Your task to perform on an android device: turn pop-ups off in chrome Image 0: 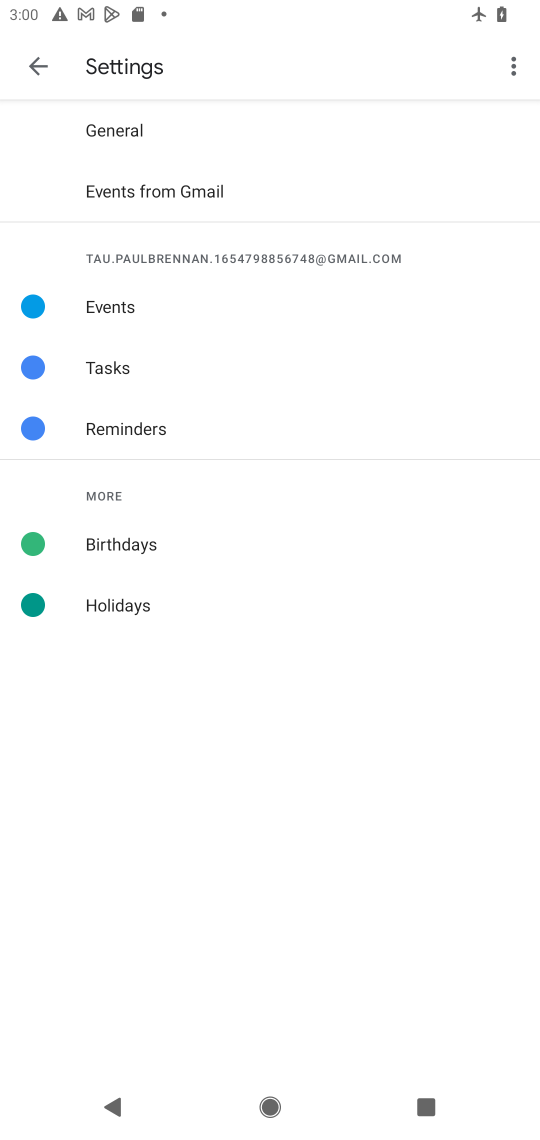
Step 0: press home button
Your task to perform on an android device: turn pop-ups off in chrome Image 1: 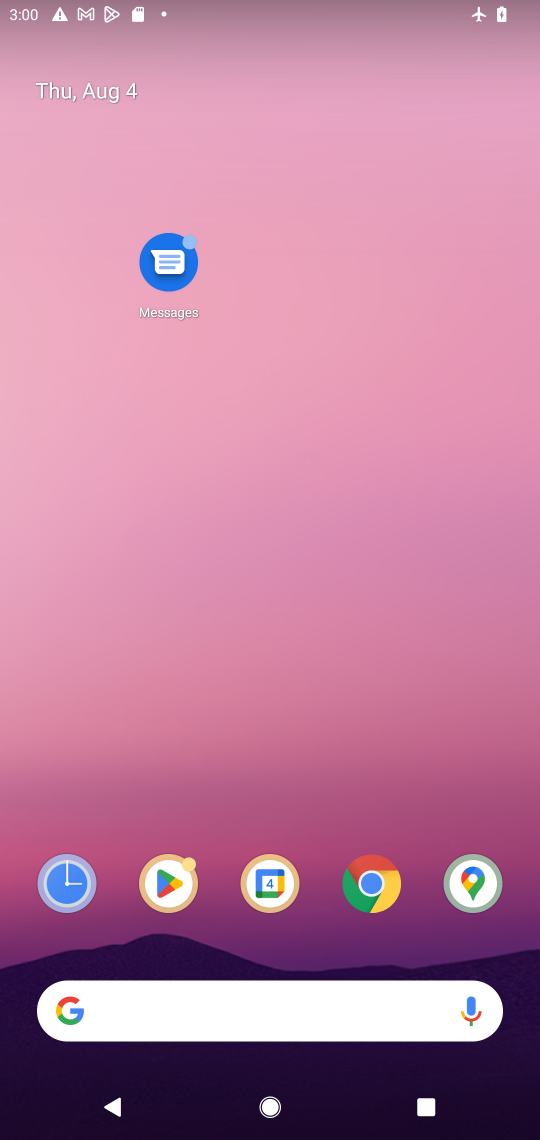
Step 1: click (372, 892)
Your task to perform on an android device: turn pop-ups off in chrome Image 2: 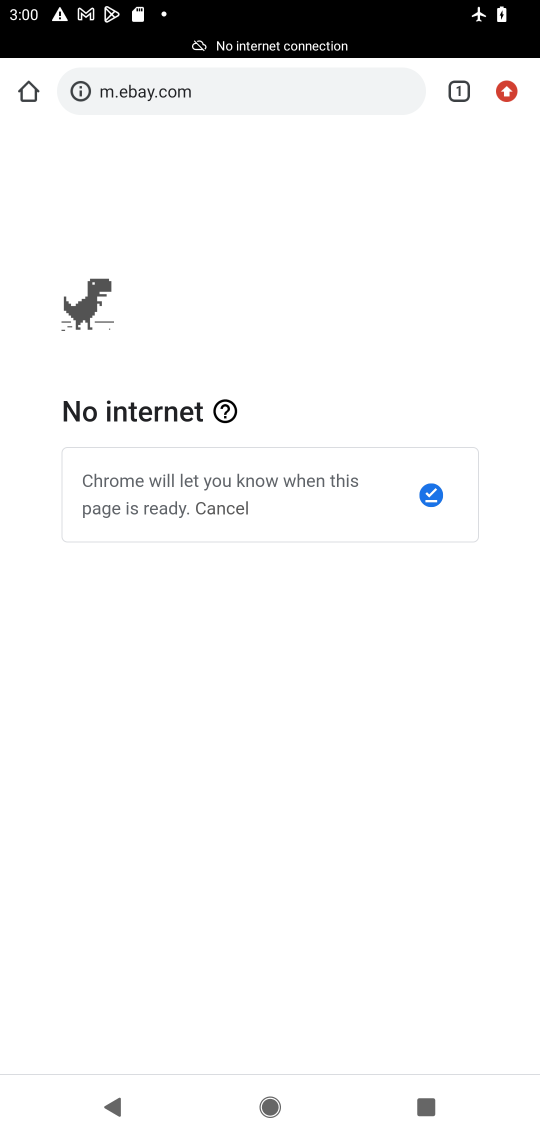
Step 2: click (508, 92)
Your task to perform on an android device: turn pop-ups off in chrome Image 3: 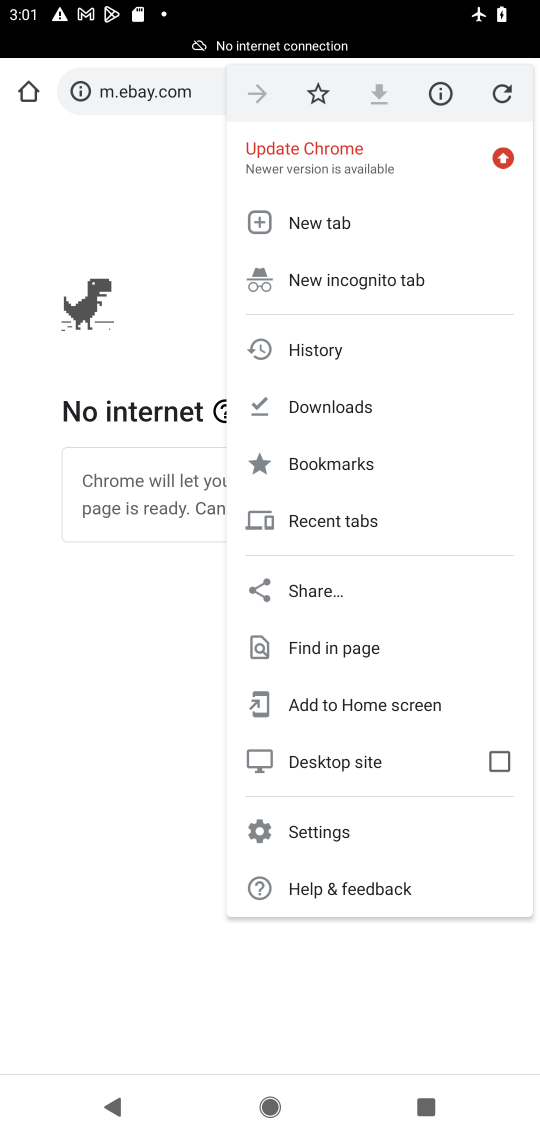
Step 3: click (331, 828)
Your task to perform on an android device: turn pop-ups off in chrome Image 4: 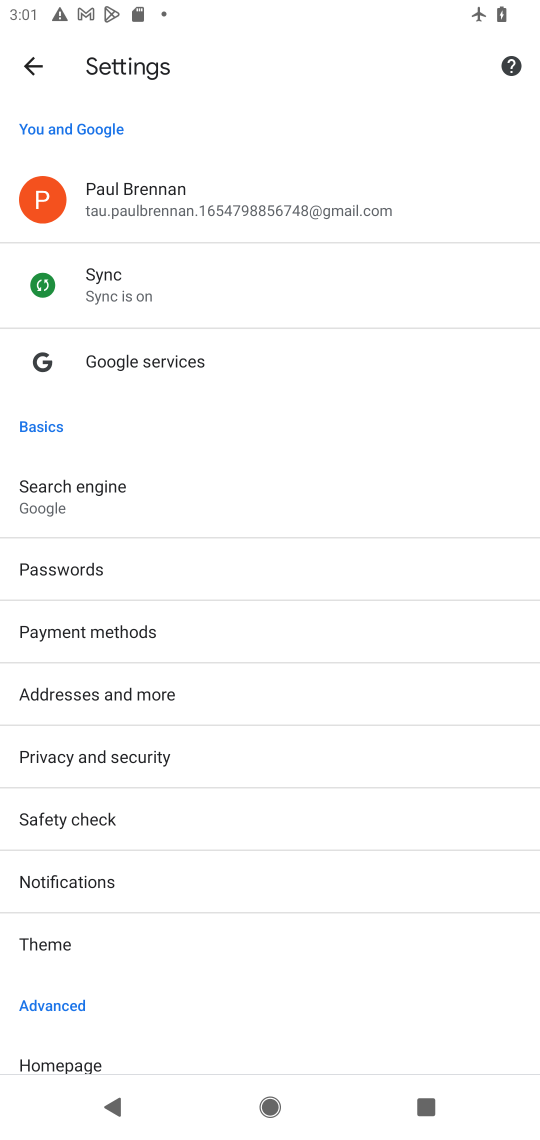
Step 4: drag from (121, 1016) to (107, 473)
Your task to perform on an android device: turn pop-ups off in chrome Image 5: 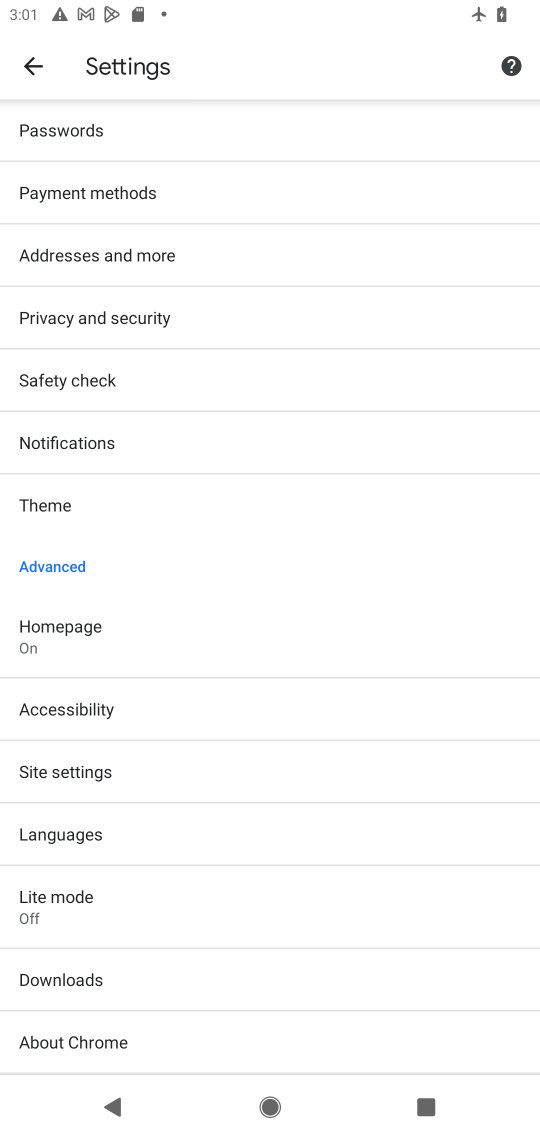
Step 5: click (88, 777)
Your task to perform on an android device: turn pop-ups off in chrome Image 6: 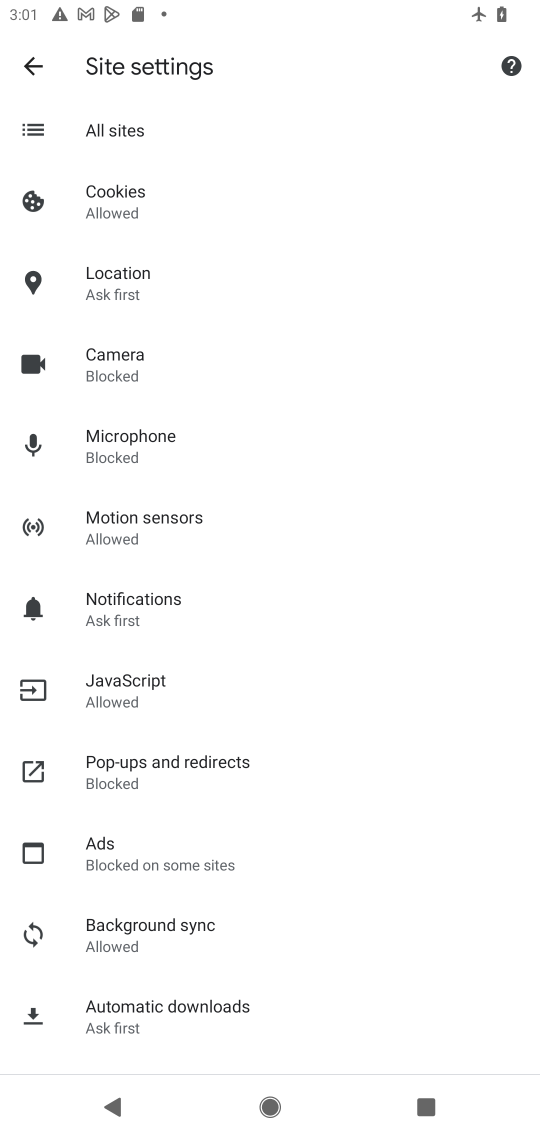
Step 6: click (140, 766)
Your task to perform on an android device: turn pop-ups off in chrome Image 7: 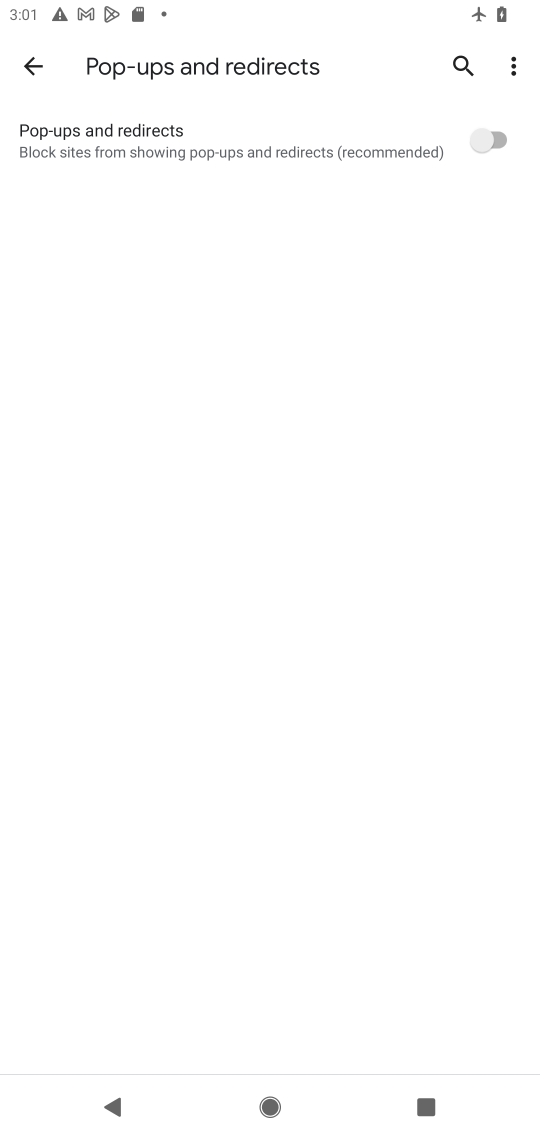
Step 7: task complete